Your task to perform on an android device: Open Google Maps and go to "Timeline" Image 0: 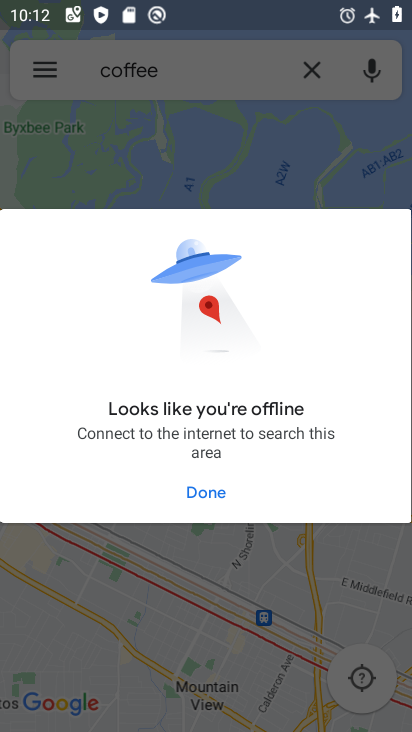
Step 0: click (213, 510)
Your task to perform on an android device: Open Google Maps and go to "Timeline" Image 1: 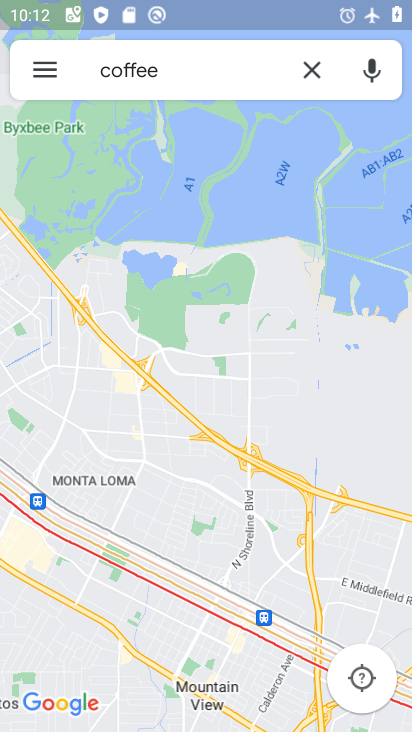
Step 1: click (48, 60)
Your task to perform on an android device: Open Google Maps and go to "Timeline" Image 2: 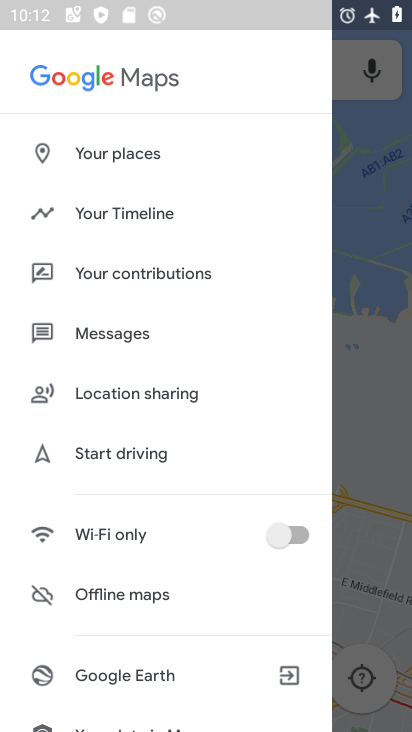
Step 2: click (151, 223)
Your task to perform on an android device: Open Google Maps and go to "Timeline" Image 3: 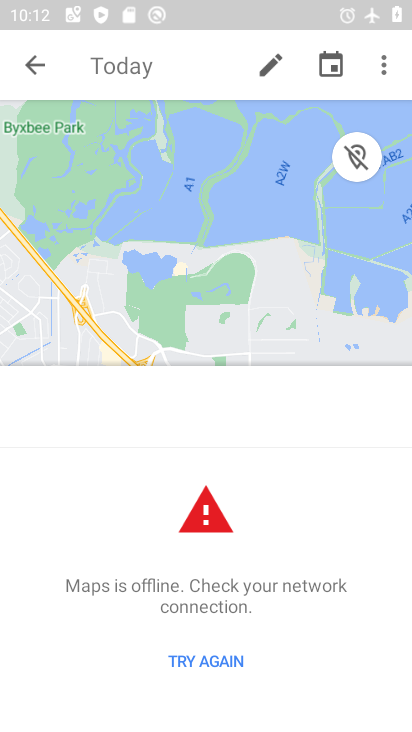
Step 3: task complete